Your task to perform on an android device: turn vacation reply on in the gmail app Image 0: 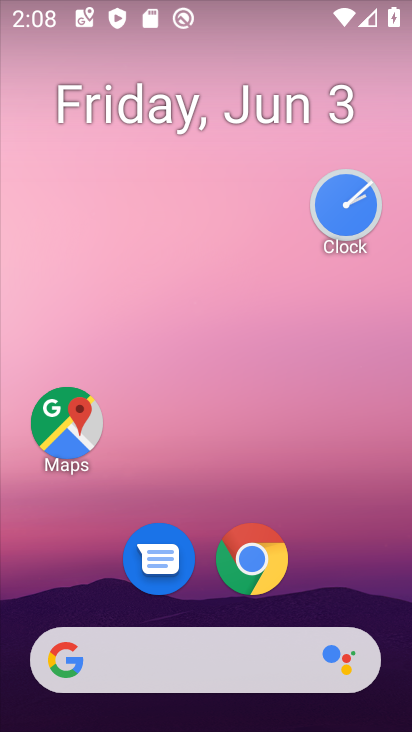
Step 0: drag from (368, 561) to (378, 288)
Your task to perform on an android device: turn vacation reply on in the gmail app Image 1: 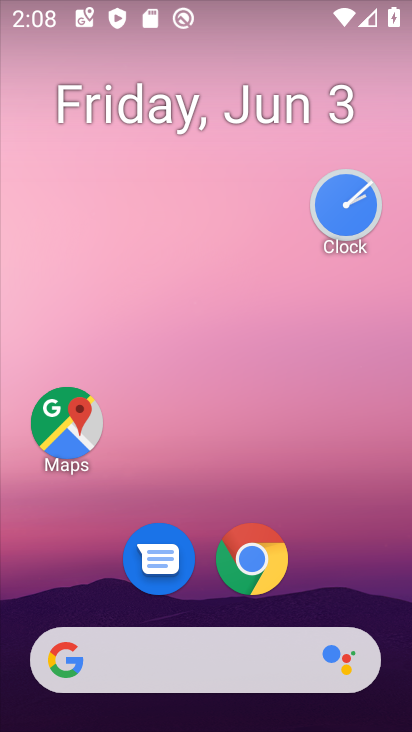
Step 1: drag from (361, 609) to (401, 286)
Your task to perform on an android device: turn vacation reply on in the gmail app Image 2: 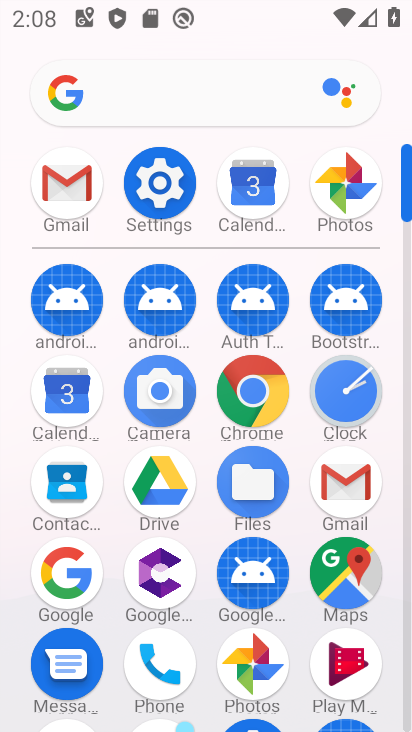
Step 2: click (362, 482)
Your task to perform on an android device: turn vacation reply on in the gmail app Image 3: 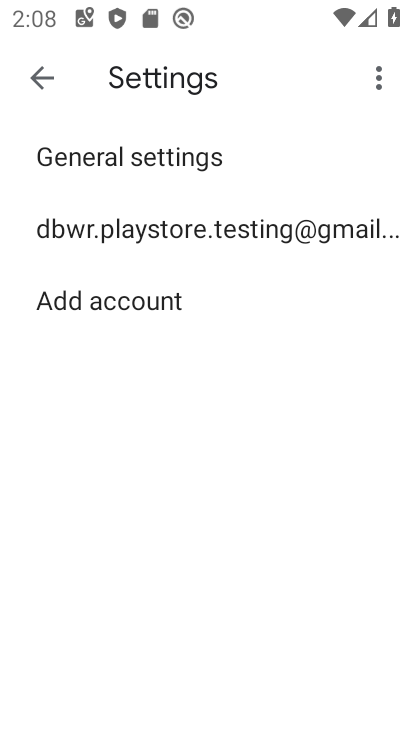
Step 3: click (154, 221)
Your task to perform on an android device: turn vacation reply on in the gmail app Image 4: 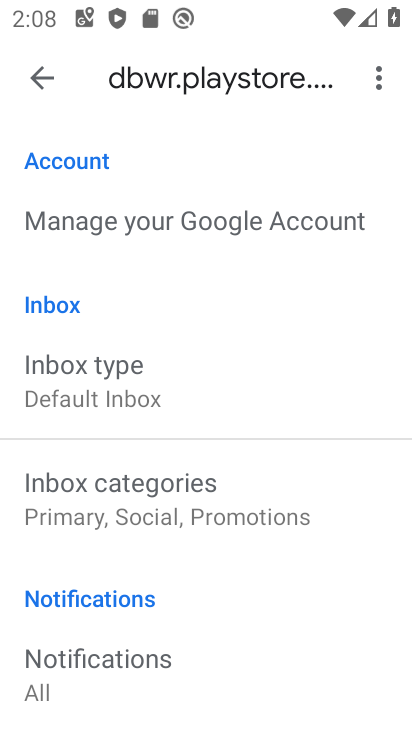
Step 4: task complete